Your task to perform on an android device: What's the latest video from GameSpot? Image 0: 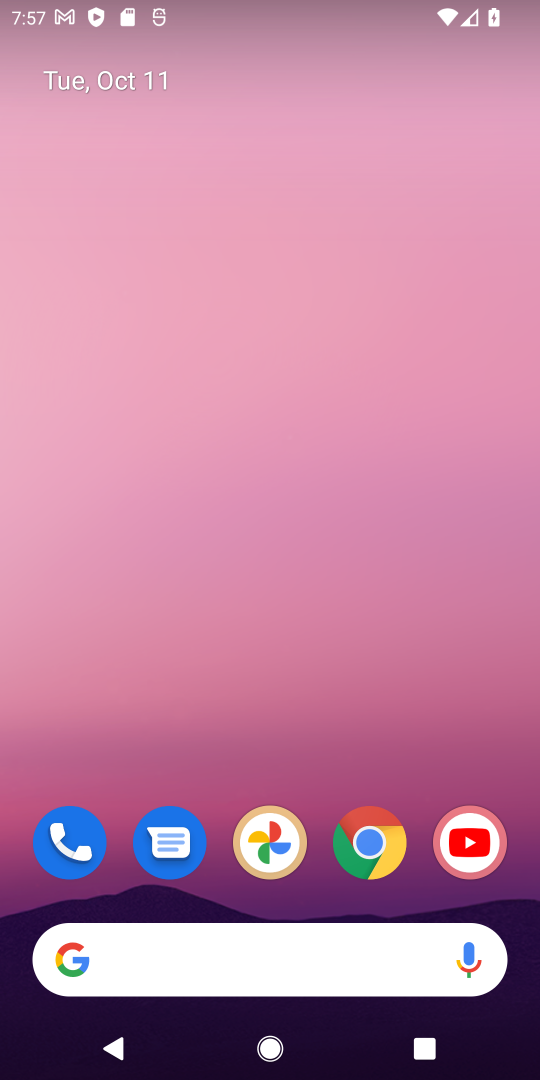
Step 0: click (373, 842)
Your task to perform on an android device: What's the latest video from GameSpot? Image 1: 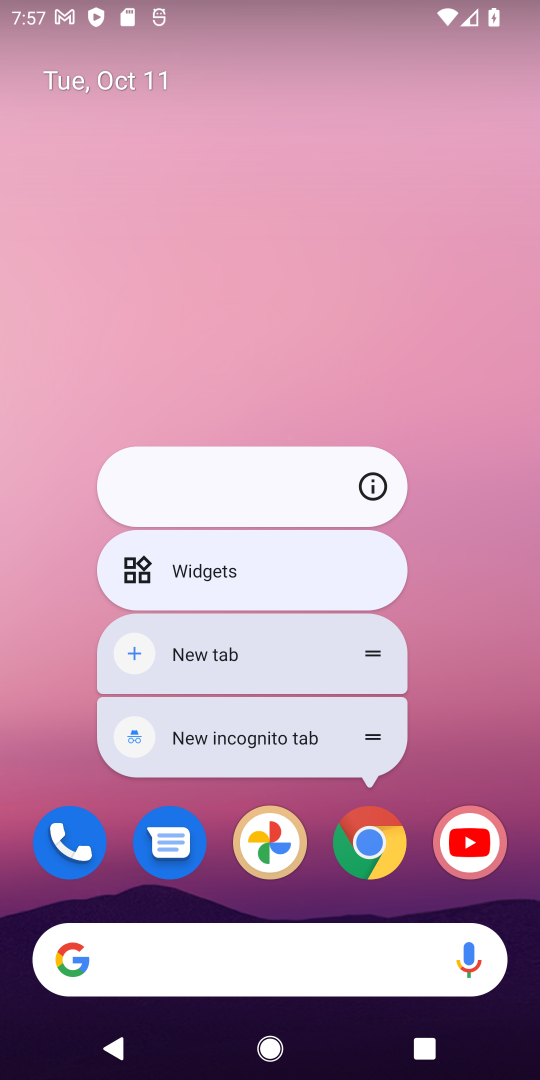
Step 1: click (366, 852)
Your task to perform on an android device: What's the latest video from GameSpot? Image 2: 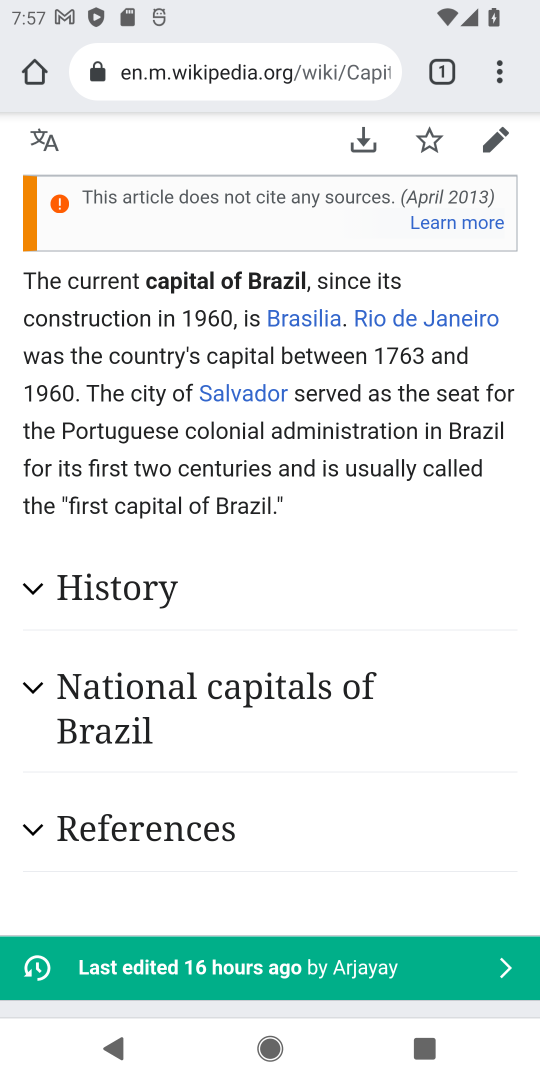
Step 2: click (226, 73)
Your task to perform on an android device: What's the latest video from GameSpot? Image 3: 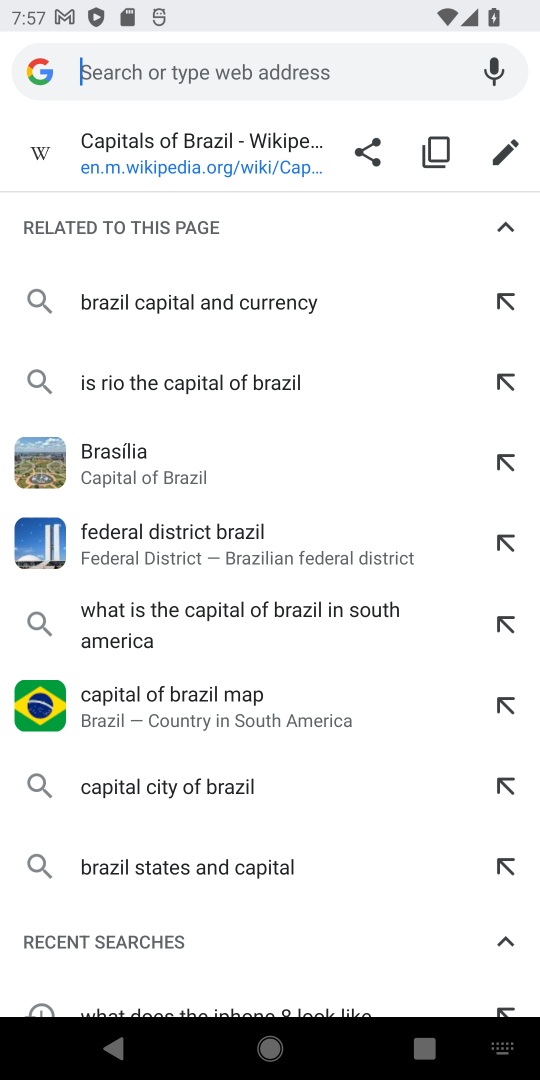
Step 3: type "latest video from gamespot"
Your task to perform on an android device: What's the latest video from GameSpot? Image 4: 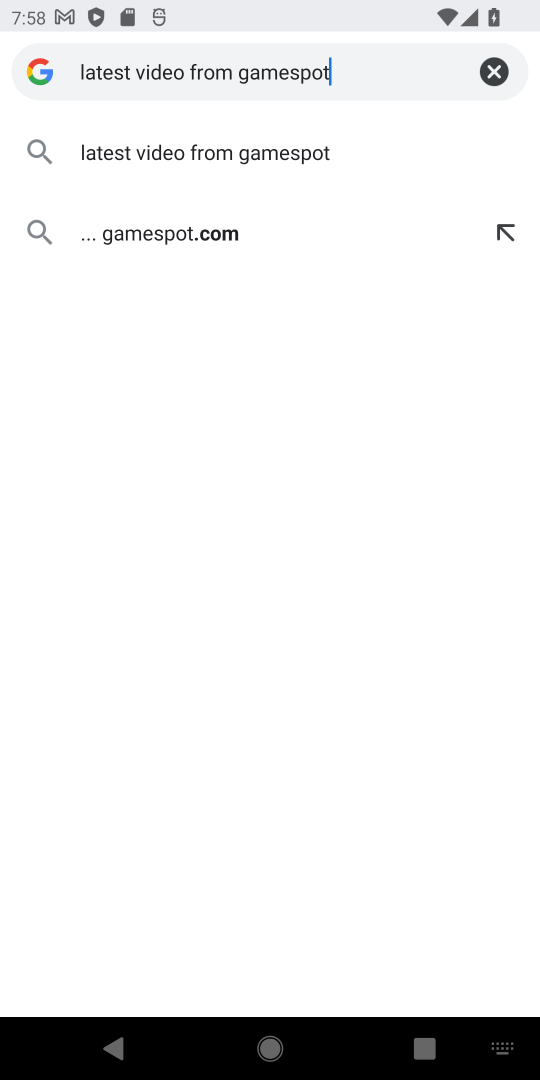
Step 4: click (276, 156)
Your task to perform on an android device: What's the latest video from GameSpot? Image 5: 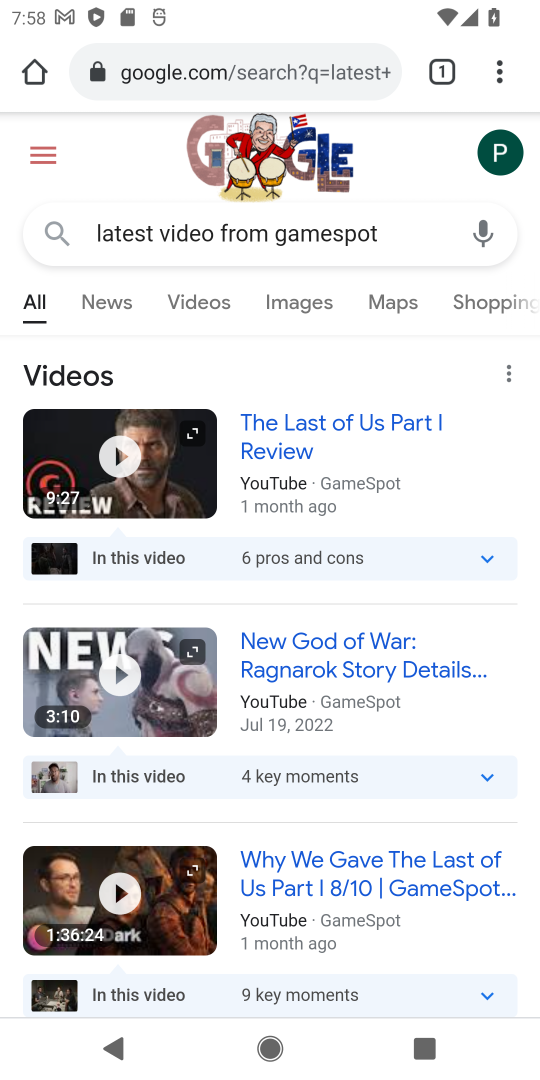
Step 5: task complete